Your task to perform on an android device: Open settings Image 0: 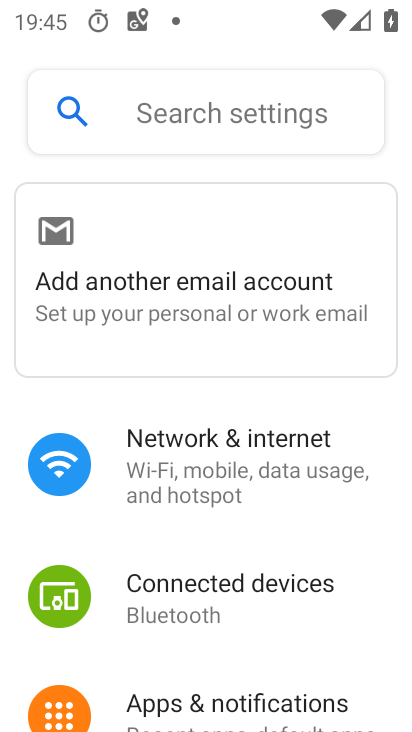
Step 0: press home button
Your task to perform on an android device: Open settings Image 1: 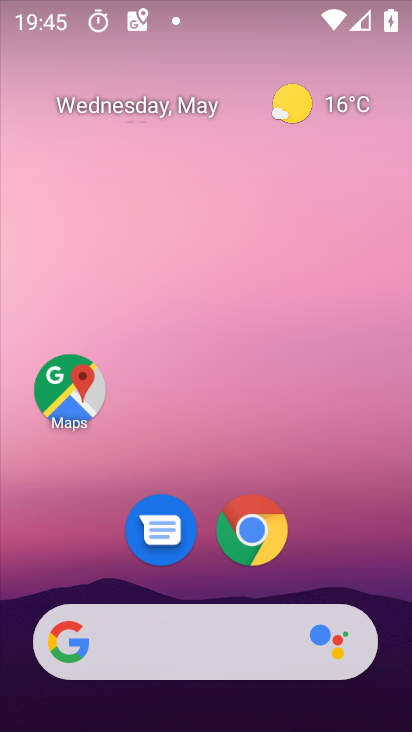
Step 1: drag from (119, 541) to (150, 285)
Your task to perform on an android device: Open settings Image 2: 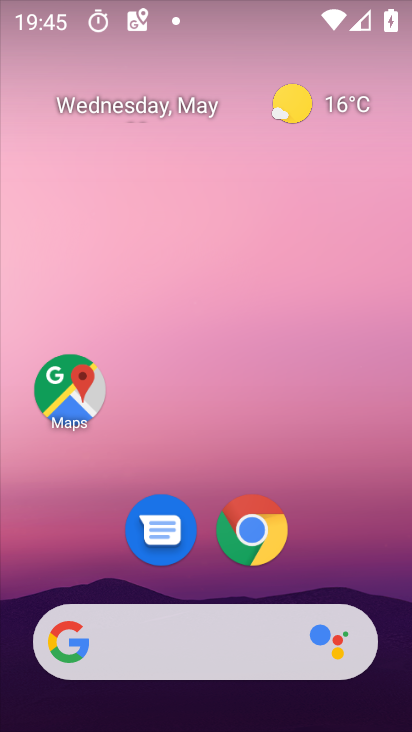
Step 2: drag from (102, 581) to (93, 183)
Your task to perform on an android device: Open settings Image 3: 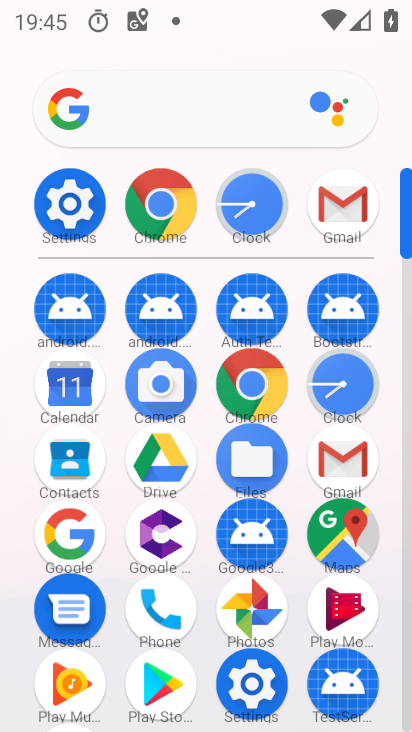
Step 3: click (66, 210)
Your task to perform on an android device: Open settings Image 4: 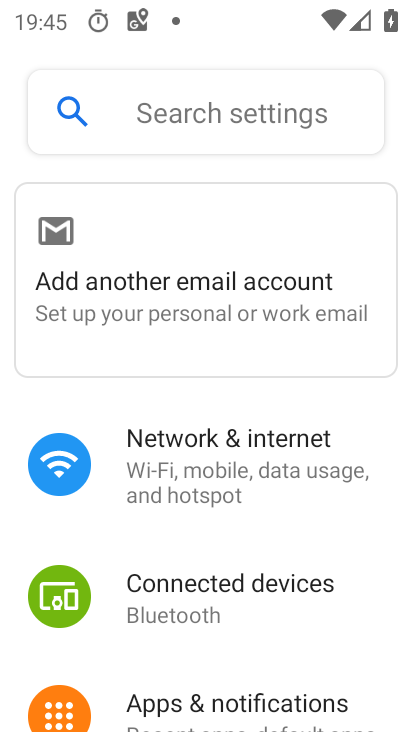
Step 4: task complete